Your task to perform on an android device: Do I have any events today? Image 0: 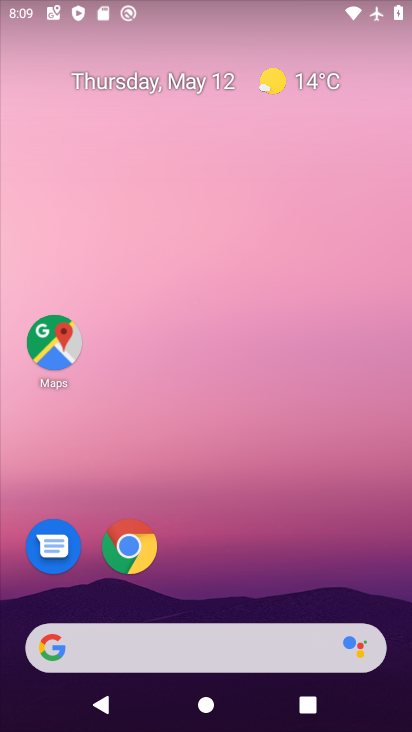
Step 0: drag from (205, 624) to (317, 184)
Your task to perform on an android device: Do I have any events today? Image 1: 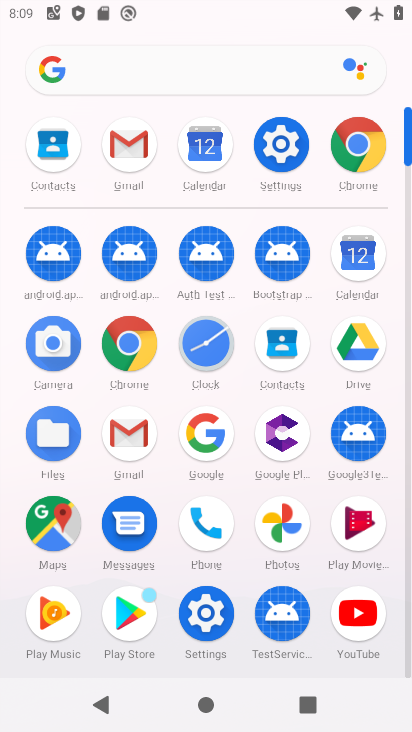
Step 1: click (356, 268)
Your task to perform on an android device: Do I have any events today? Image 2: 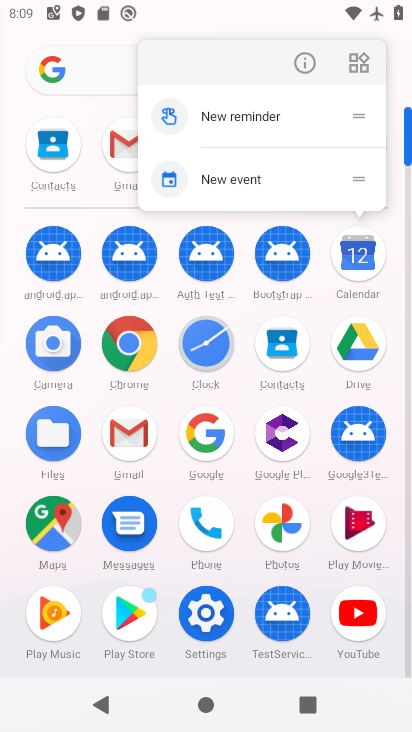
Step 2: click (361, 255)
Your task to perform on an android device: Do I have any events today? Image 3: 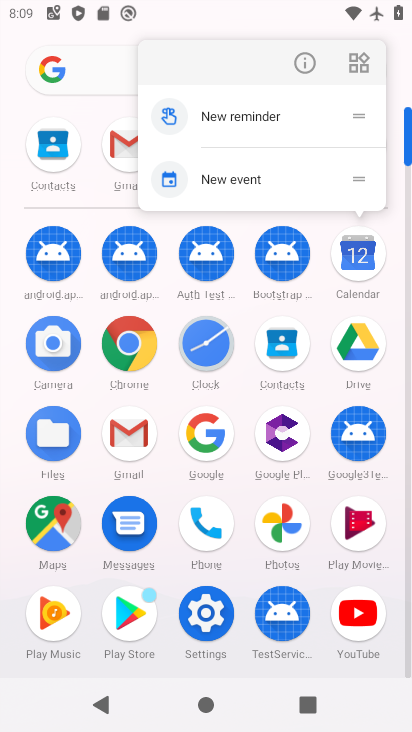
Step 3: click (359, 257)
Your task to perform on an android device: Do I have any events today? Image 4: 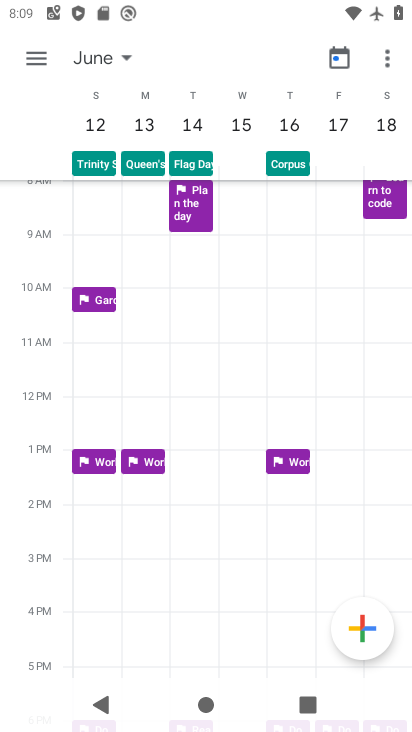
Step 4: click (88, 63)
Your task to perform on an android device: Do I have any events today? Image 5: 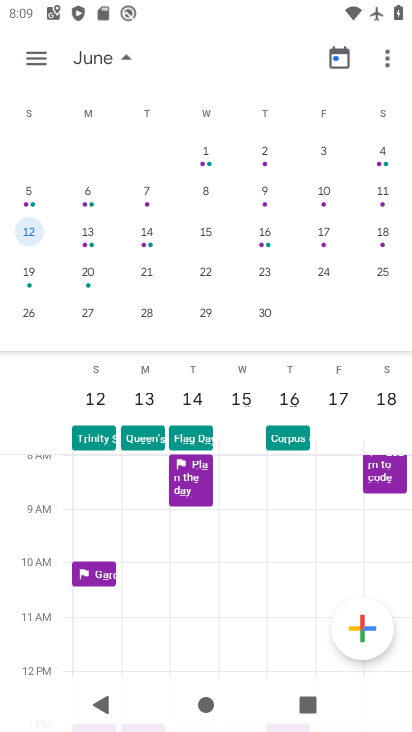
Step 5: drag from (112, 212) to (332, 321)
Your task to perform on an android device: Do I have any events today? Image 6: 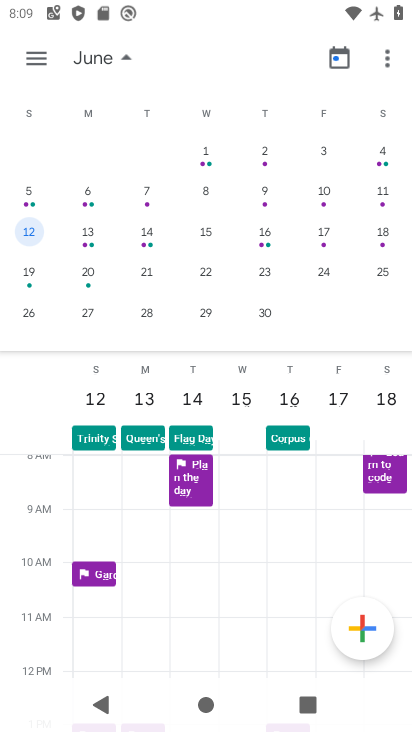
Step 6: drag from (113, 196) to (410, 312)
Your task to perform on an android device: Do I have any events today? Image 7: 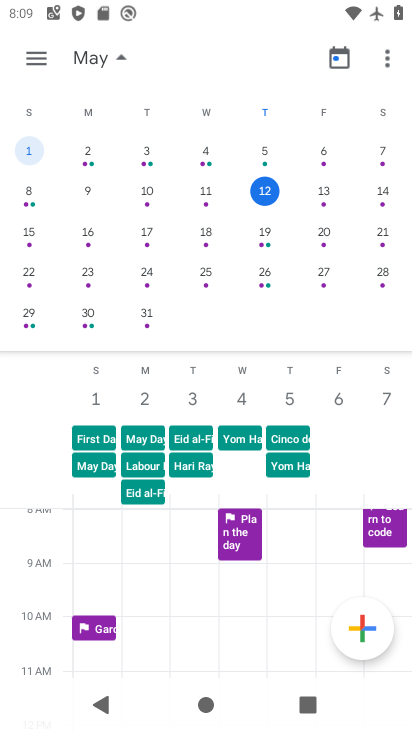
Step 7: click (263, 187)
Your task to perform on an android device: Do I have any events today? Image 8: 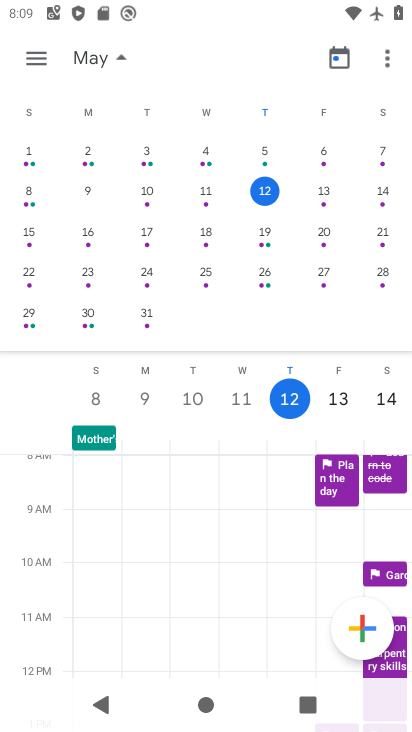
Step 8: click (33, 50)
Your task to perform on an android device: Do I have any events today? Image 9: 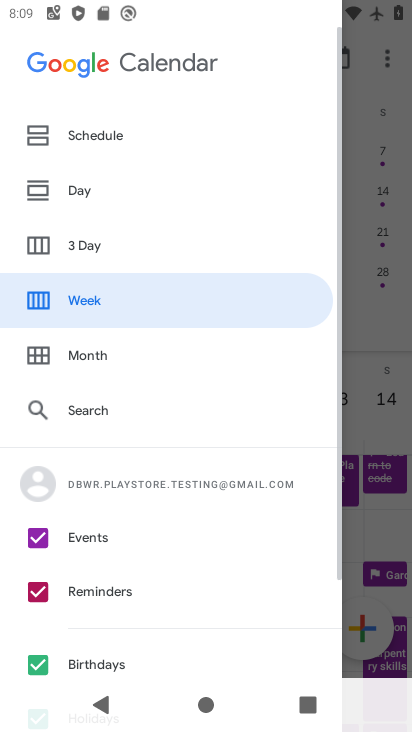
Step 9: click (96, 131)
Your task to perform on an android device: Do I have any events today? Image 10: 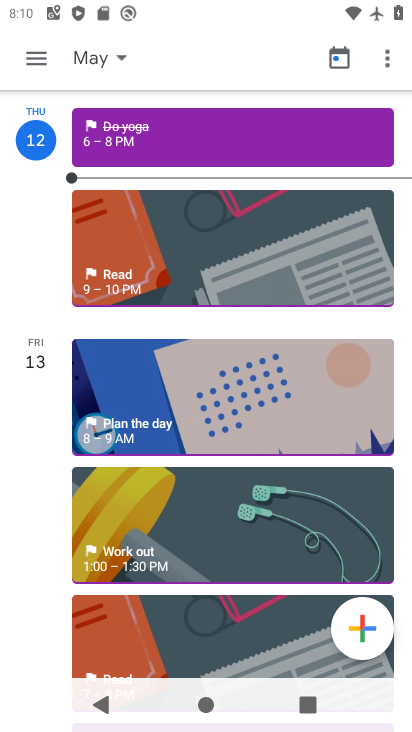
Step 10: click (132, 135)
Your task to perform on an android device: Do I have any events today? Image 11: 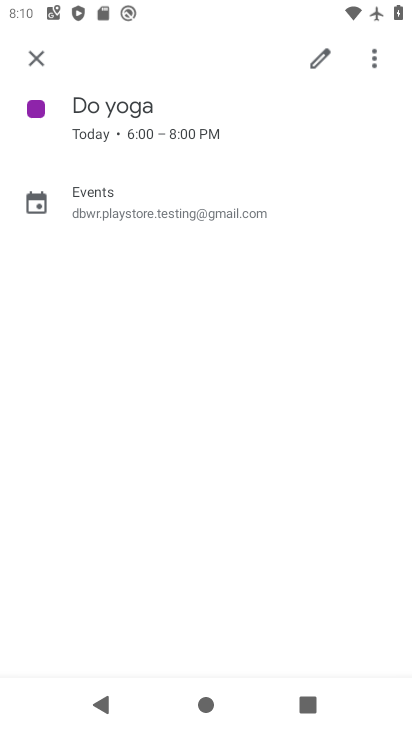
Step 11: task complete